Your task to perform on an android device: turn off wifi Image 0: 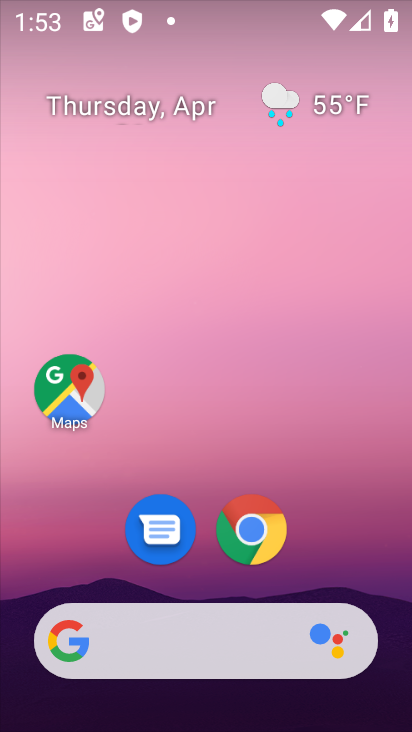
Step 0: drag from (282, 4) to (257, 332)
Your task to perform on an android device: turn off wifi Image 1: 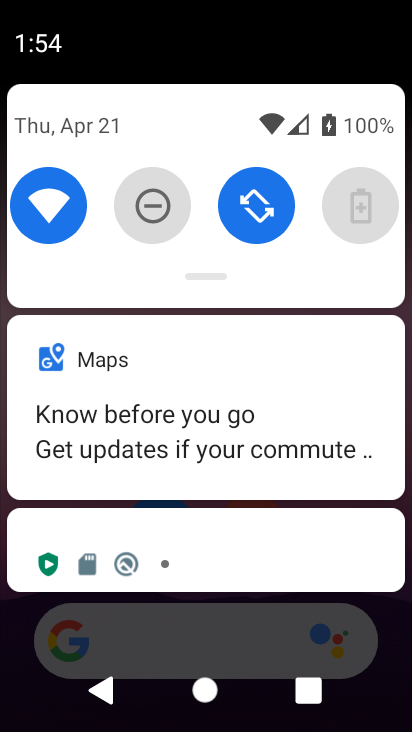
Step 1: click (67, 200)
Your task to perform on an android device: turn off wifi Image 2: 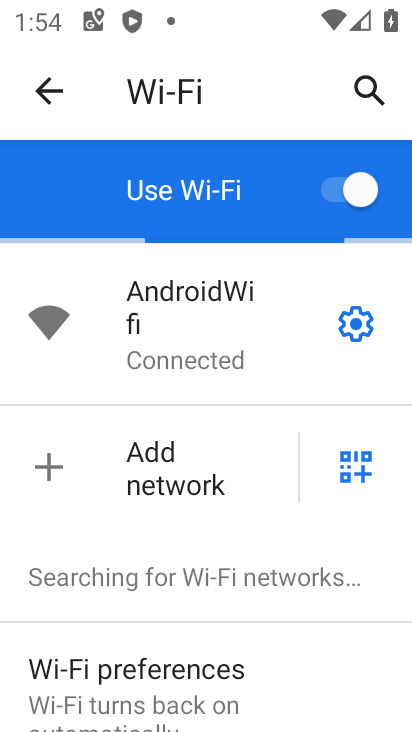
Step 2: click (363, 194)
Your task to perform on an android device: turn off wifi Image 3: 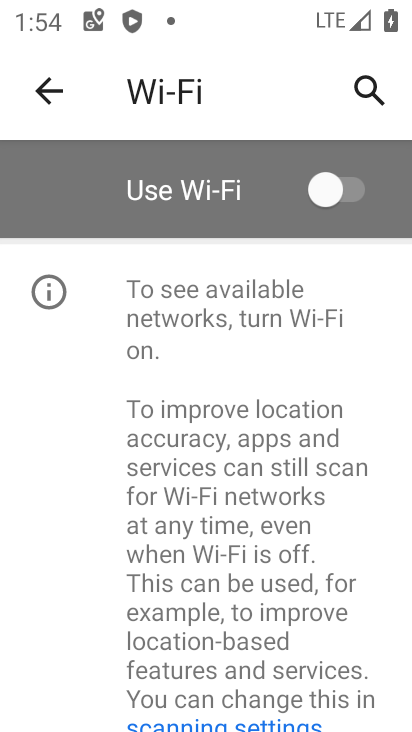
Step 3: task complete